Your task to perform on an android device: What's on my calendar today? Image 0: 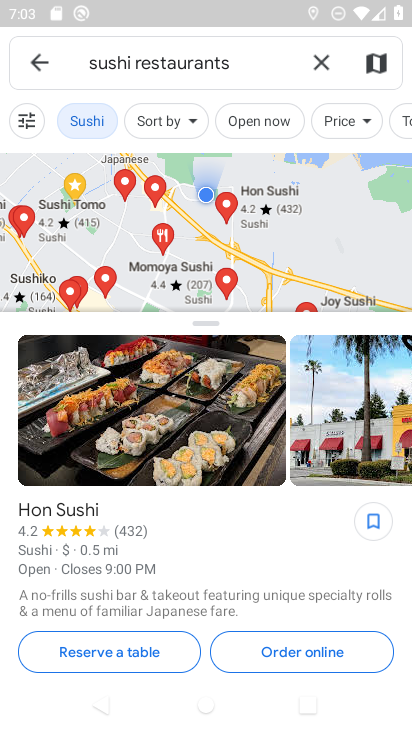
Step 0: press home button
Your task to perform on an android device: What's on my calendar today? Image 1: 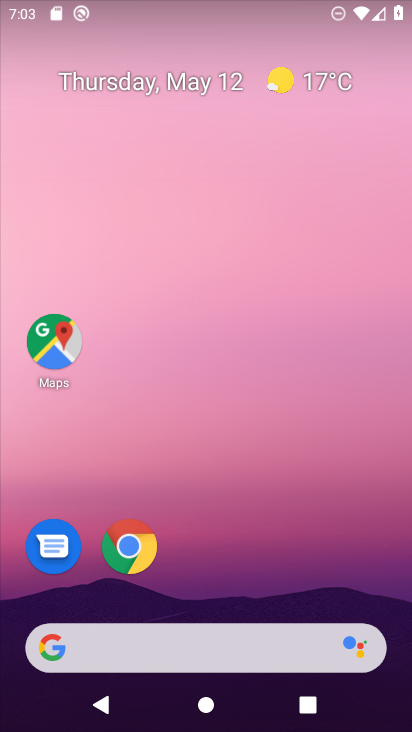
Step 1: drag from (272, 546) to (189, 69)
Your task to perform on an android device: What's on my calendar today? Image 2: 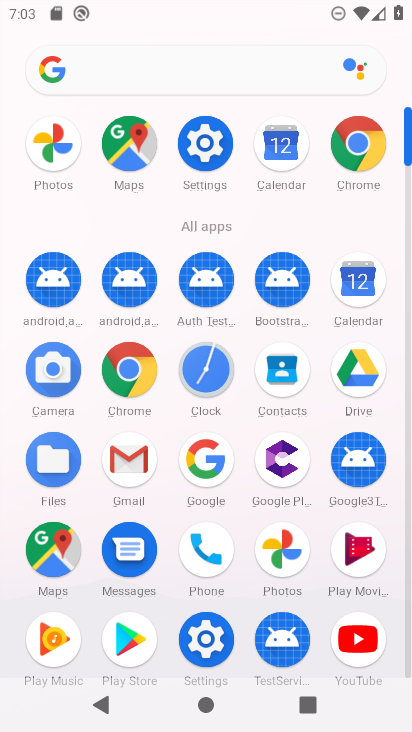
Step 2: click (359, 280)
Your task to perform on an android device: What's on my calendar today? Image 3: 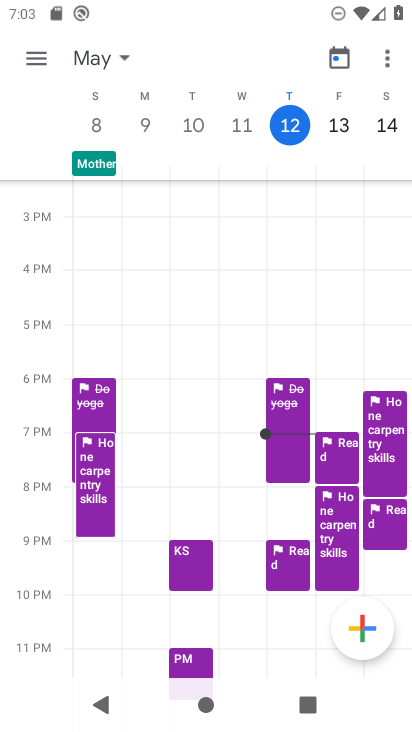
Step 3: click (293, 128)
Your task to perform on an android device: What's on my calendar today? Image 4: 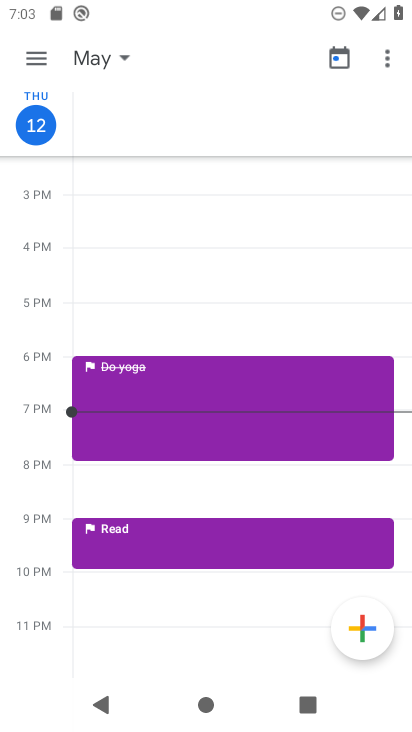
Step 4: task complete